Your task to perform on an android device: install app "DoorDash - Dasher" Image 0: 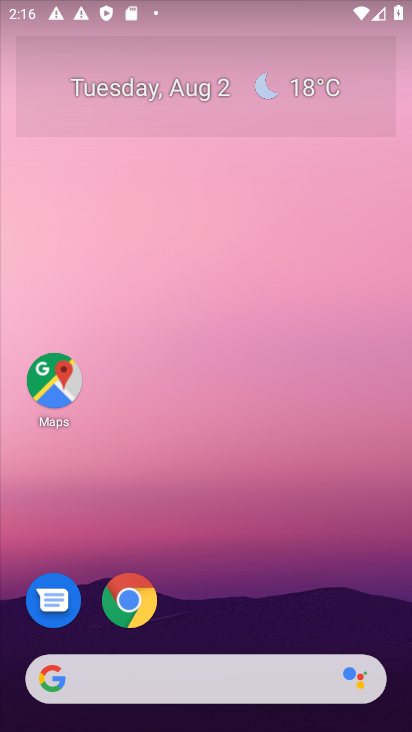
Step 0: drag from (129, 608) to (187, 176)
Your task to perform on an android device: install app "DoorDash - Dasher" Image 1: 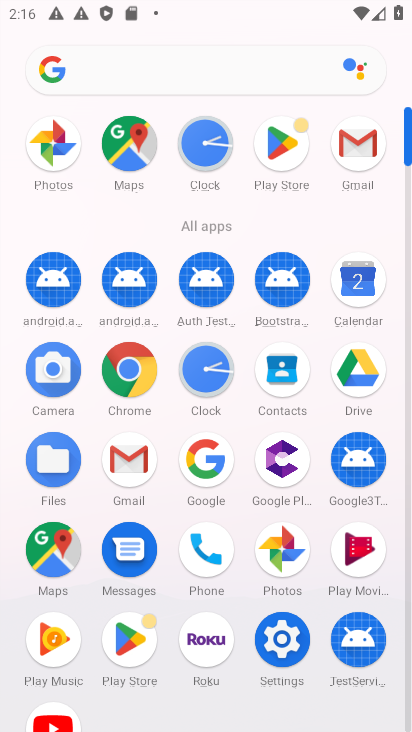
Step 1: click (262, 139)
Your task to perform on an android device: install app "DoorDash - Dasher" Image 2: 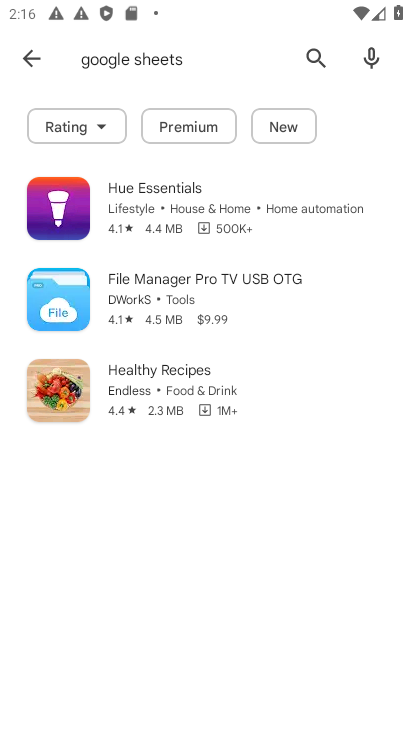
Step 2: click (317, 54)
Your task to perform on an android device: install app "DoorDash - Dasher" Image 3: 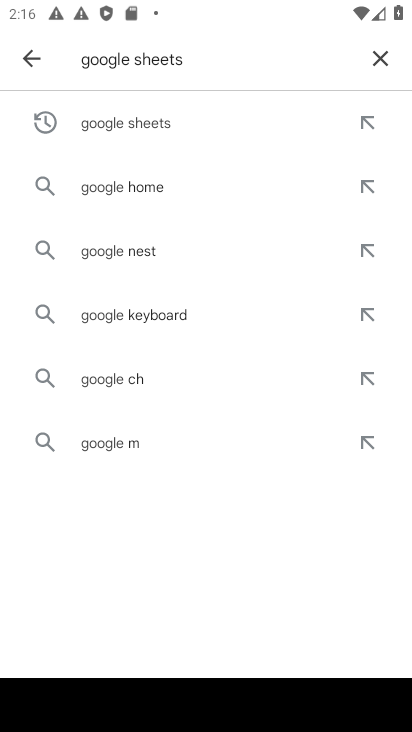
Step 3: click (380, 56)
Your task to perform on an android device: install app "DoorDash - Dasher" Image 4: 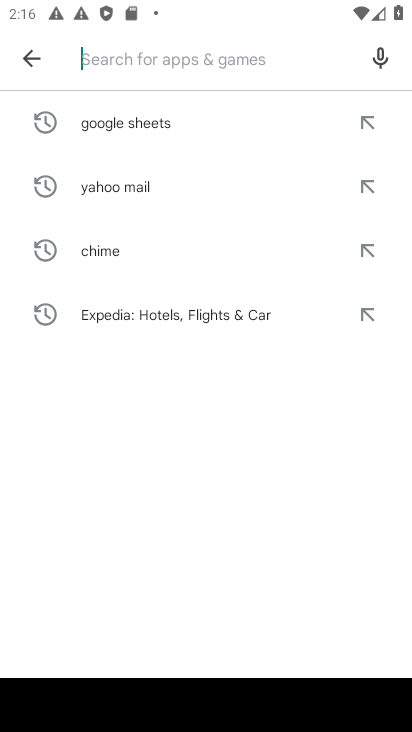
Step 4: type "DoorDash - Dasher"
Your task to perform on an android device: install app "DoorDash - Dasher" Image 5: 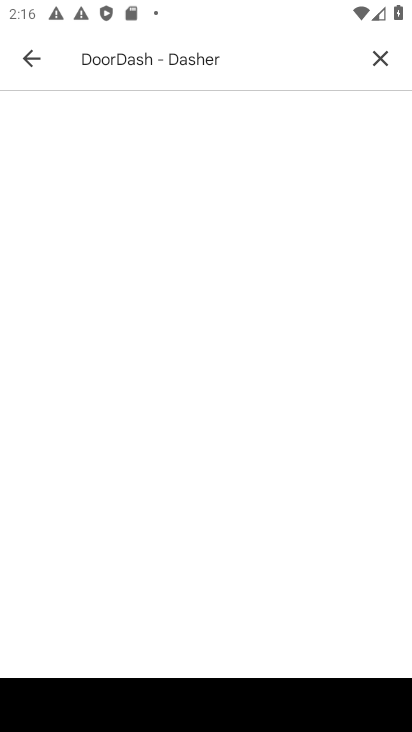
Step 5: press enter
Your task to perform on an android device: install app "DoorDash - Dasher" Image 6: 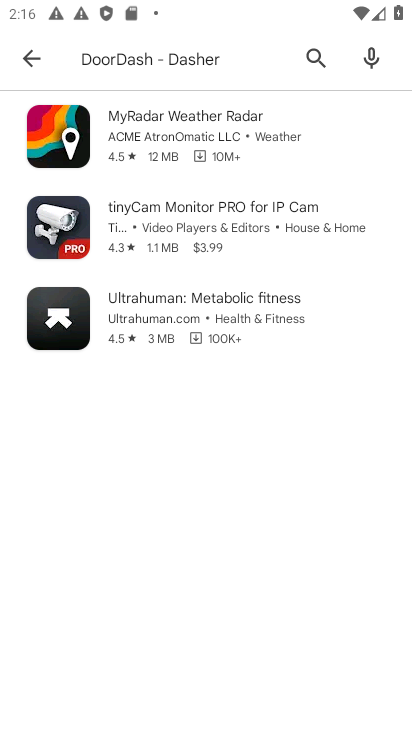
Step 6: type ""
Your task to perform on an android device: install app "DoorDash - Dasher" Image 7: 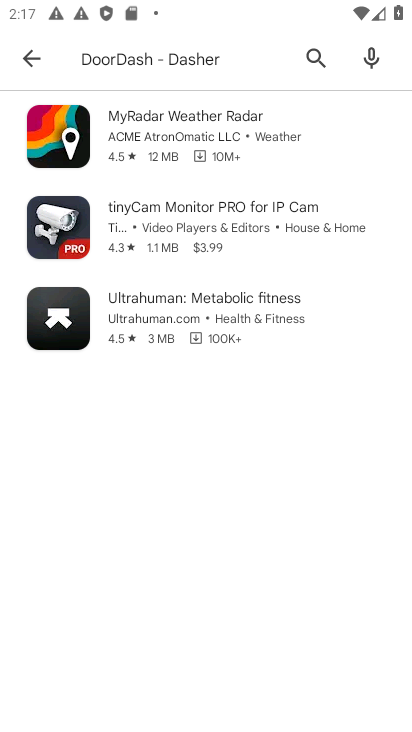
Step 7: task complete